Your task to perform on an android device: add a contact Image 0: 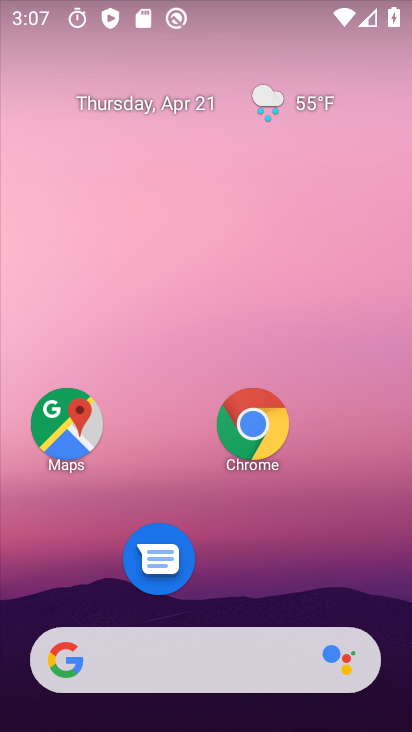
Step 0: drag from (237, 499) to (184, 88)
Your task to perform on an android device: add a contact Image 1: 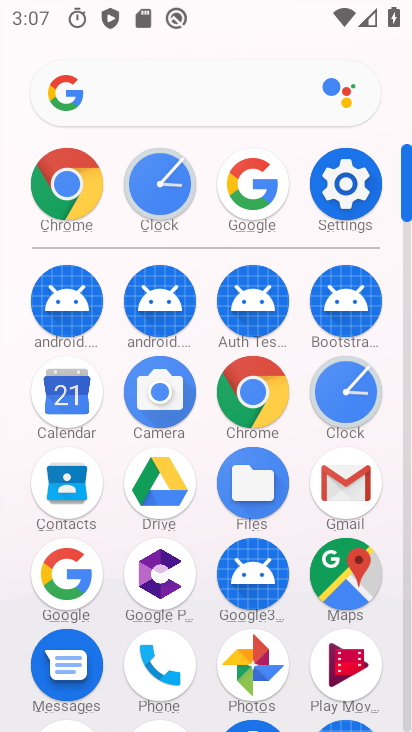
Step 1: click (64, 489)
Your task to perform on an android device: add a contact Image 2: 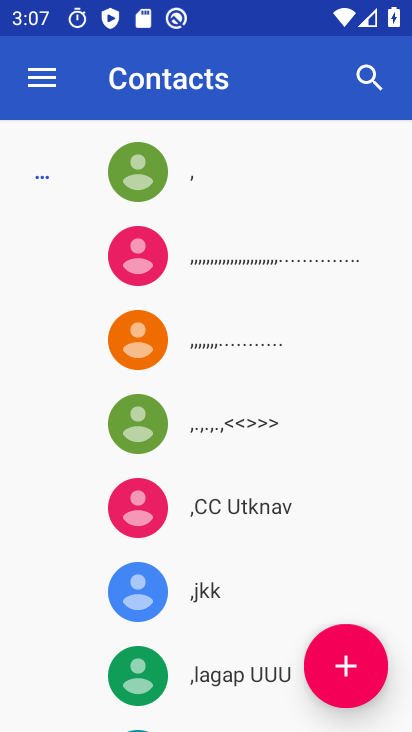
Step 2: click (354, 656)
Your task to perform on an android device: add a contact Image 3: 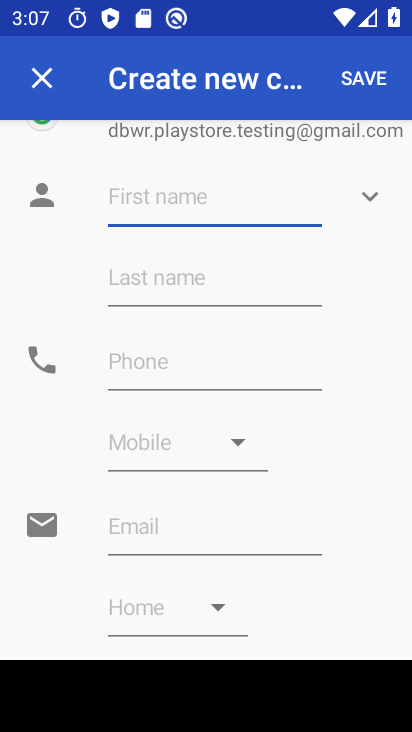
Step 3: type "fbfb"
Your task to perform on an android device: add a contact Image 4: 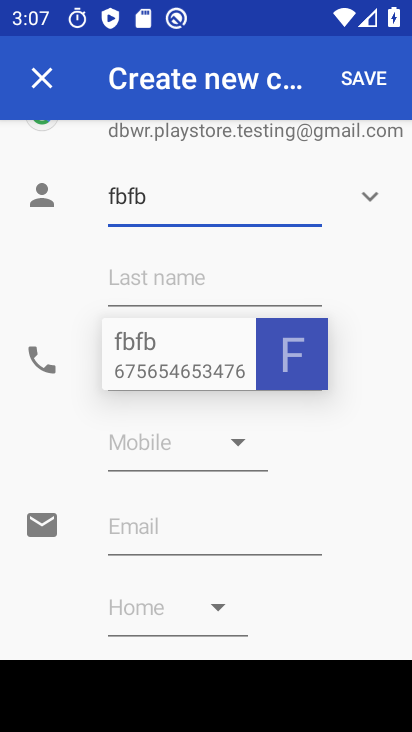
Step 4: click (358, 83)
Your task to perform on an android device: add a contact Image 5: 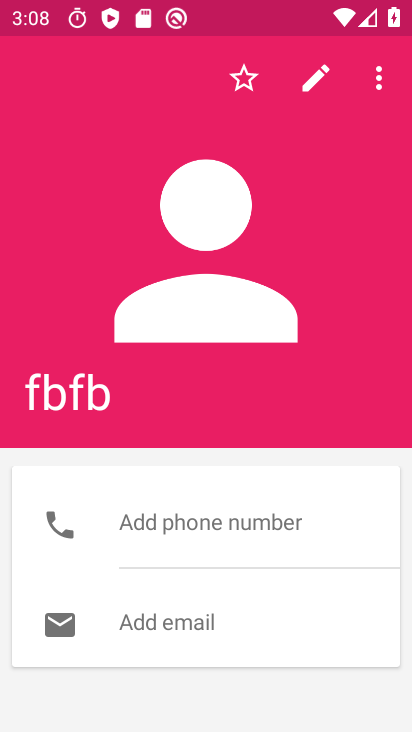
Step 5: task complete